Your task to perform on an android device: Open the web browser Image 0: 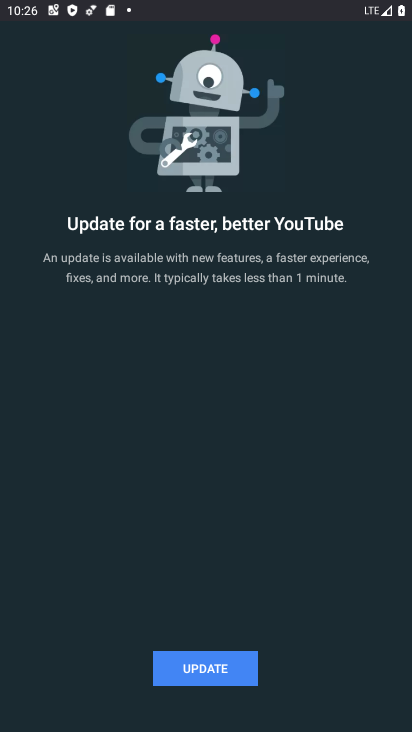
Step 0: press home button
Your task to perform on an android device: Open the web browser Image 1: 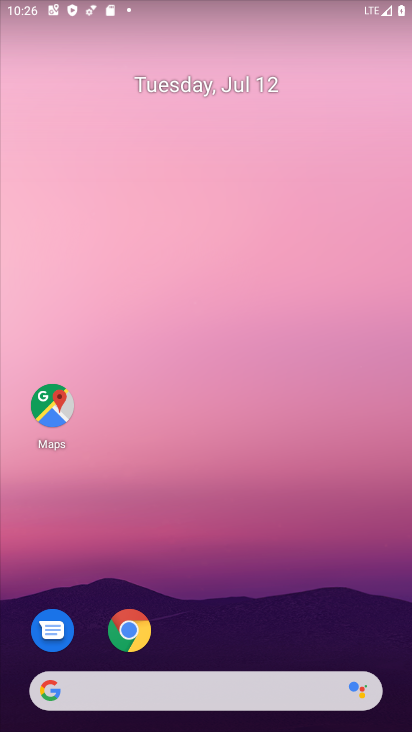
Step 1: drag from (216, 659) to (239, 171)
Your task to perform on an android device: Open the web browser Image 2: 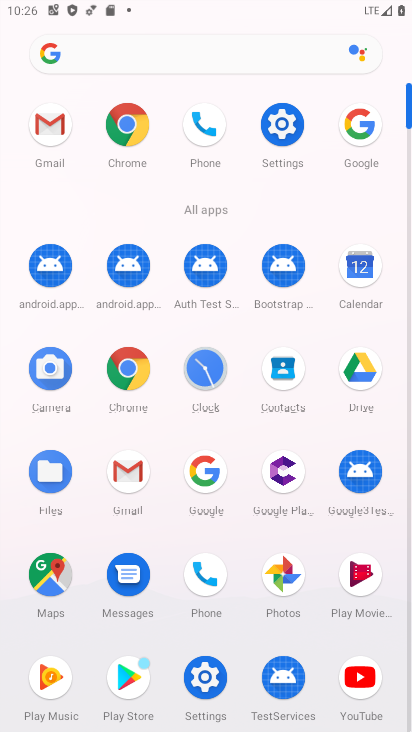
Step 2: click (214, 467)
Your task to perform on an android device: Open the web browser Image 3: 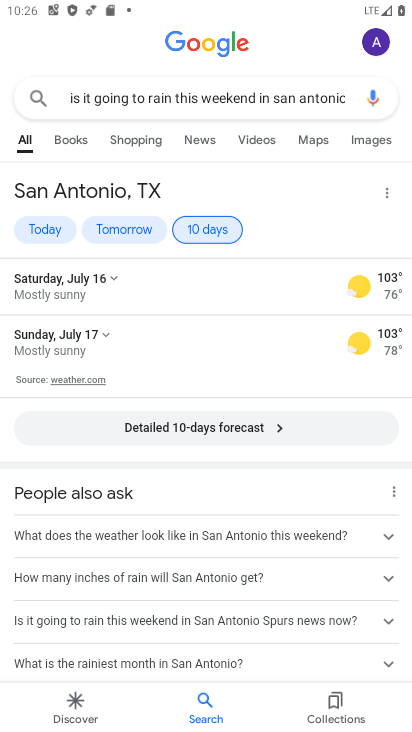
Step 3: task complete